Your task to perform on an android device: turn on sleep mode Image 0: 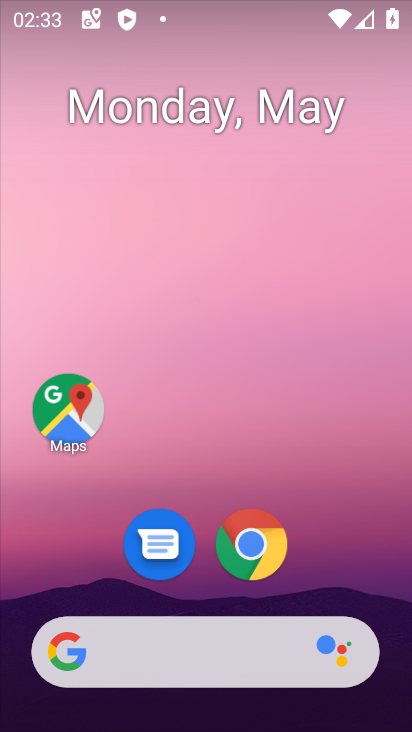
Step 0: drag from (332, 595) to (379, 204)
Your task to perform on an android device: turn on sleep mode Image 1: 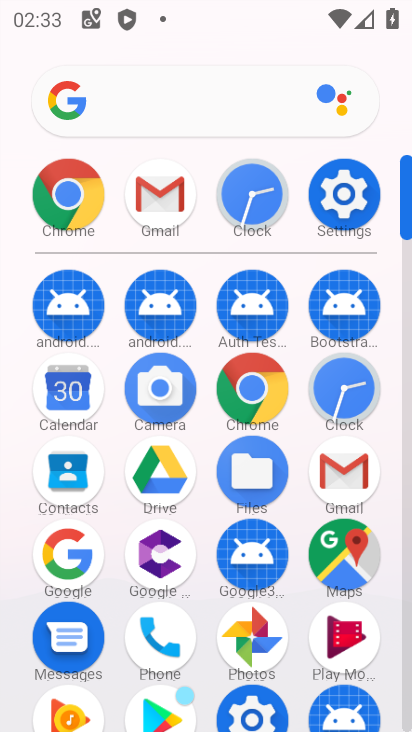
Step 1: click (373, 209)
Your task to perform on an android device: turn on sleep mode Image 2: 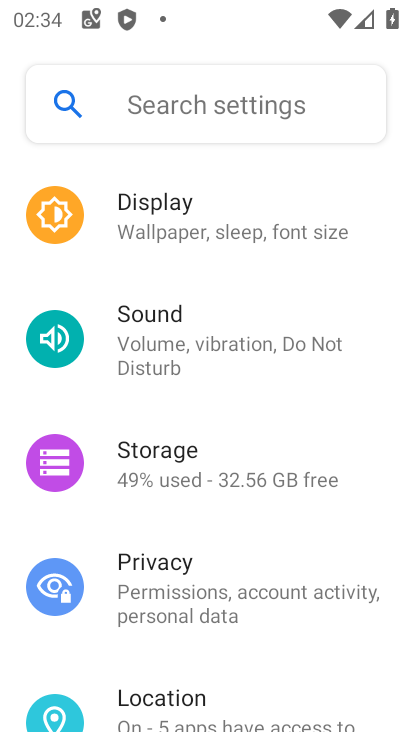
Step 2: drag from (351, 433) to (354, 329)
Your task to perform on an android device: turn on sleep mode Image 3: 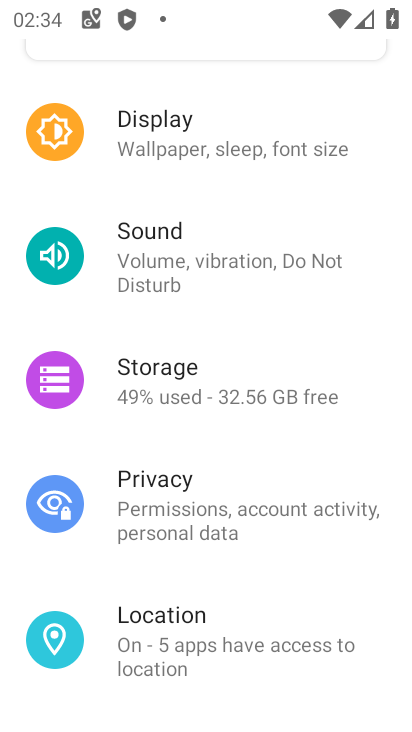
Step 3: drag from (358, 467) to (357, 350)
Your task to perform on an android device: turn on sleep mode Image 4: 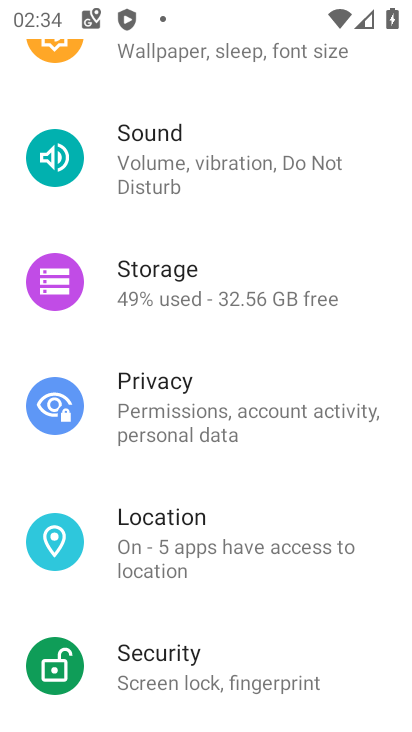
Step 4: drag from (319, 502) to (331, 376)
Your task to perform on an android device: turn on sleep mode Image 5: 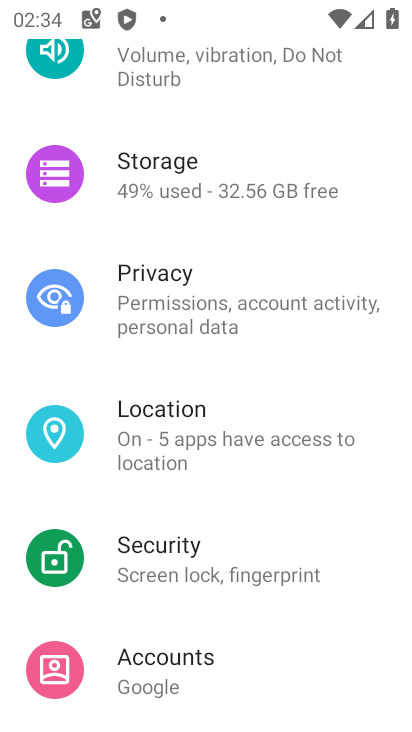
Step 5: drag from (365, 597) to (363, 498)
Your task to perform on an android device: turn on sleep mode Image 6: 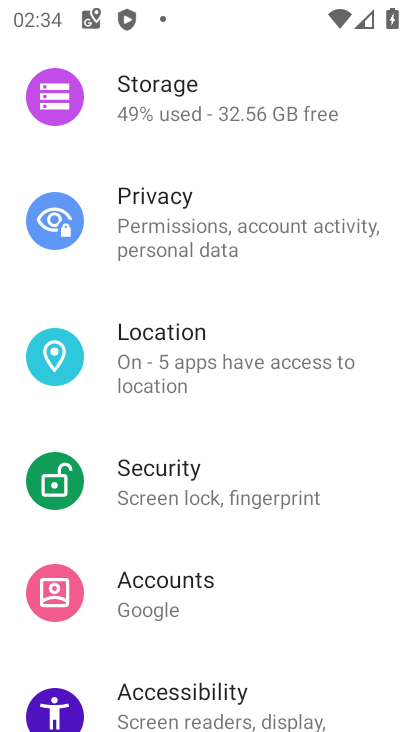
Step 6: drag from (352, 419) to (354, 509)
Your task to perform on an android device: turn on sleep mode Image 7: 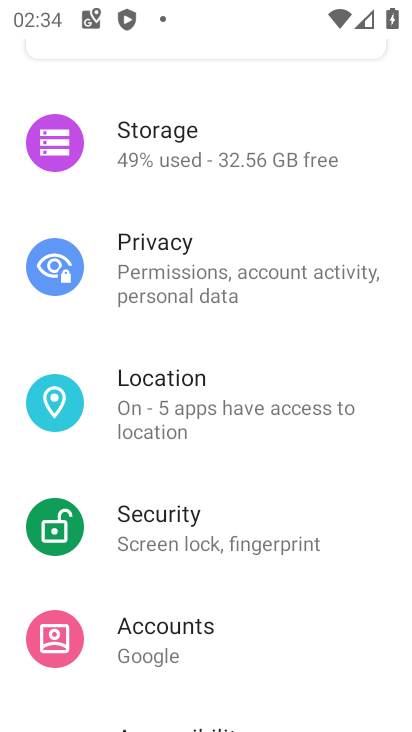
Step 7: drag from (368, 337) to (359, 498)
Your task to perform on an android device: turn on sleep mode Image 8: 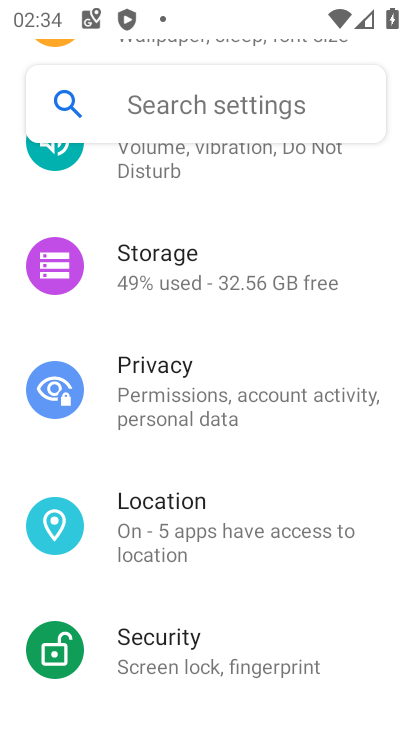
Step 8: drag from (359, 325) to (371, 435)
Your task to perform on an android device: turn on sleep mode Image 9: 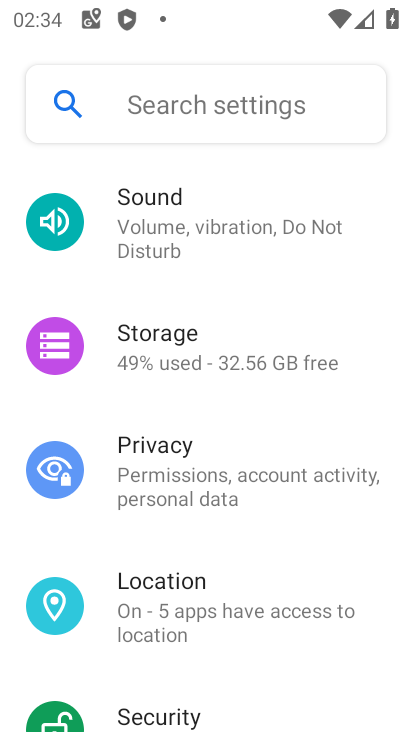
Step 9: drag from (369, 293) to (366, 433)
Your task to perform on an android device: turn on sleep mode Image 10: 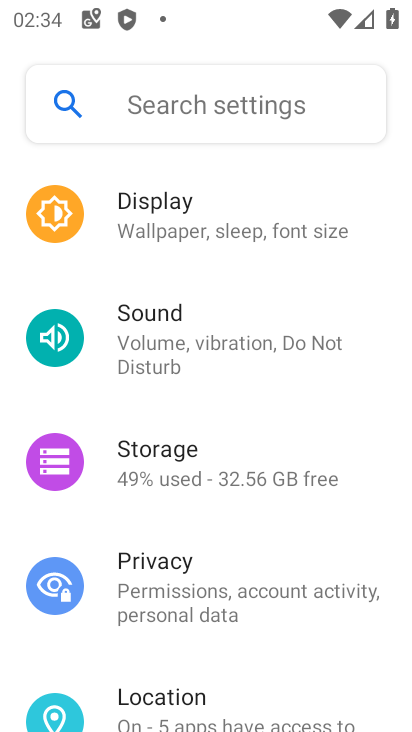
Step 10: drag from (358, 280) to (352, 491)
Your task to perform on an android device: turn on sleep mode Image 11: 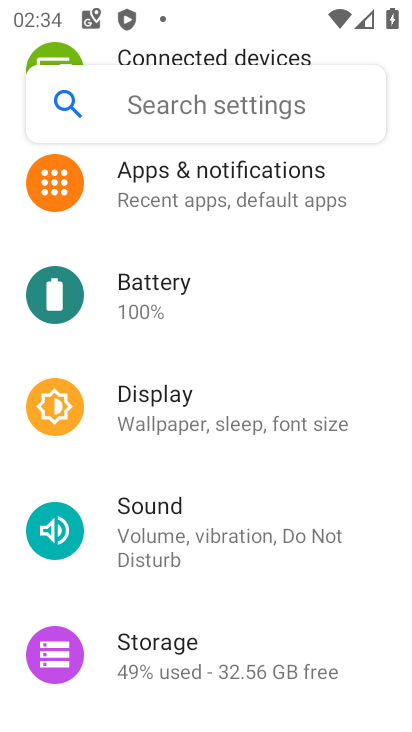
Step 11: click (290, 420)
Your task to perform on an android device: turn on sleep mode Image 12: 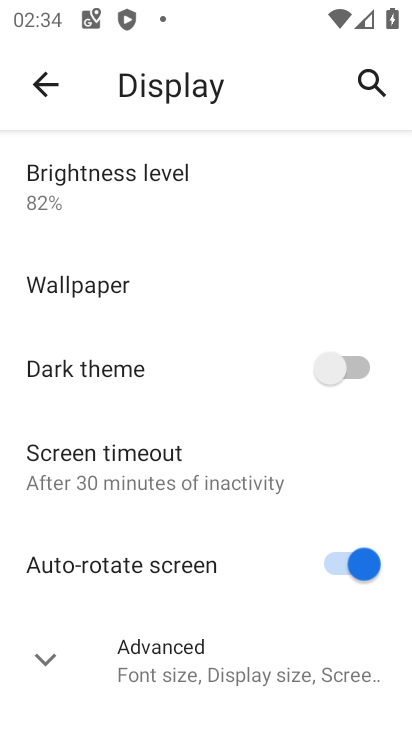
Step 12: task complete